Your task to perform on an android device: uninstall "Microsoft Outlook" Image 0: 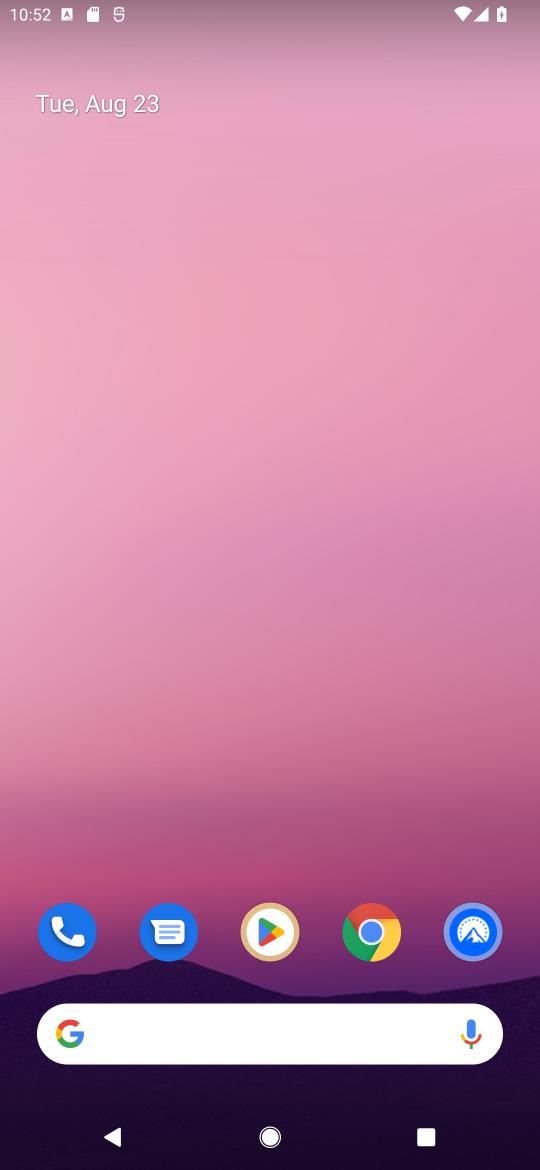
Step 0: click (276, 931)
Your task to perform on an android device: uninstall "Microsoft Outlook" Image 1: 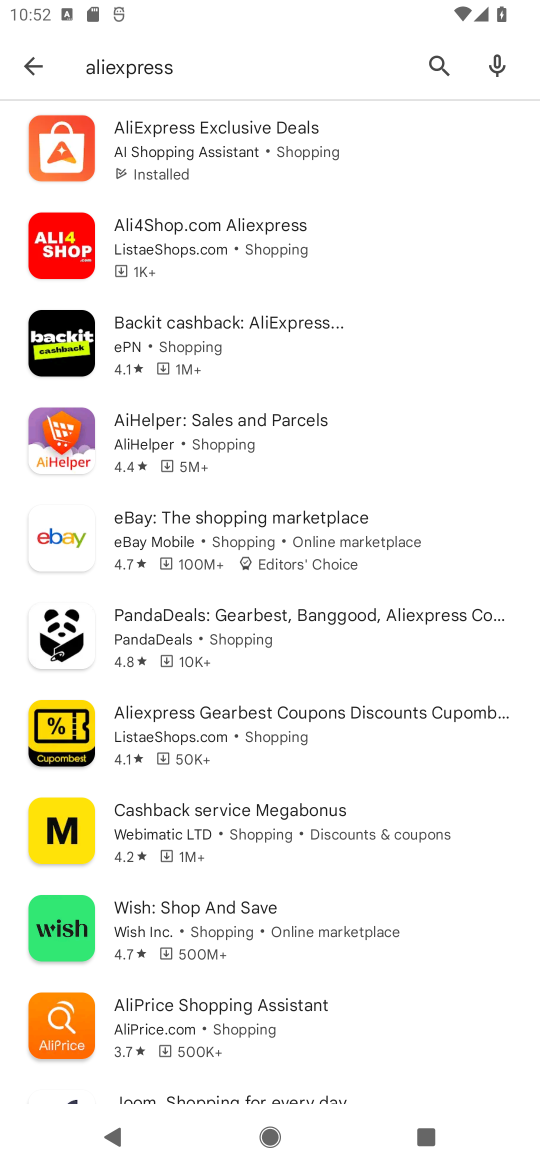
Step 1: click (432, 62)
Your task to perform on an android device: uninstall "Microsoft Outlook" Image 2: 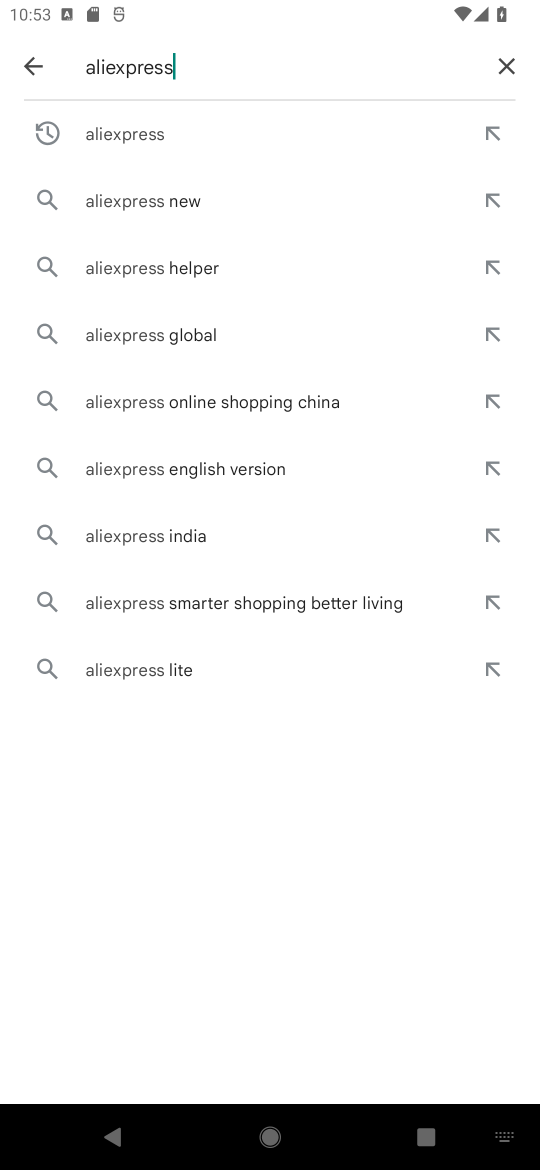
Step 2: click (500, 58)
Your task to perform on an android device: uninstall "Microsoft Outlook" Image 3: 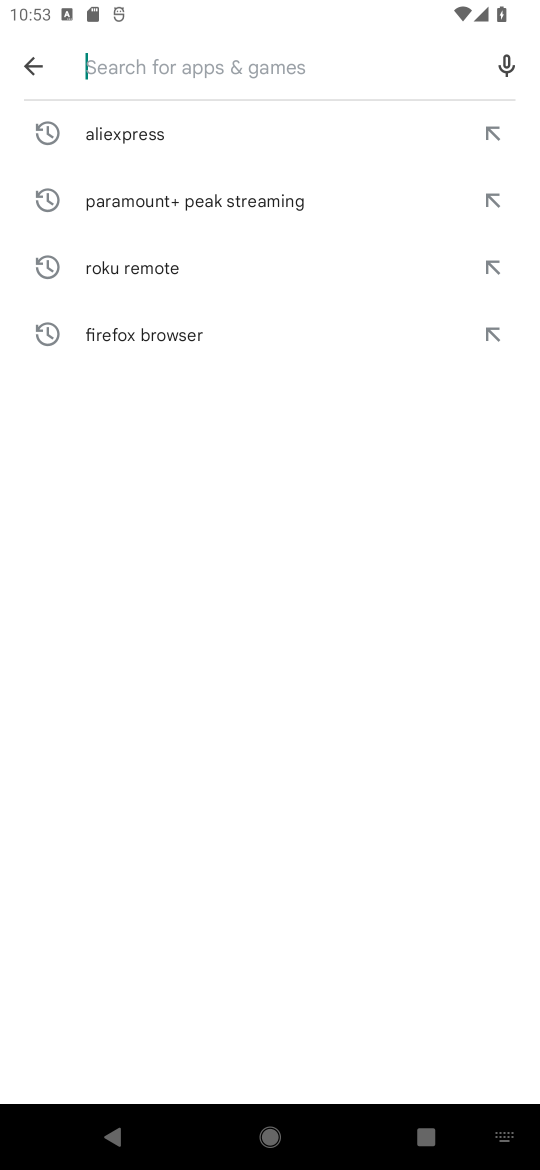
Step 3: click (149, 76)
Your task to perform on an android device: uninstall "Microsoft Outlook" Image 4: 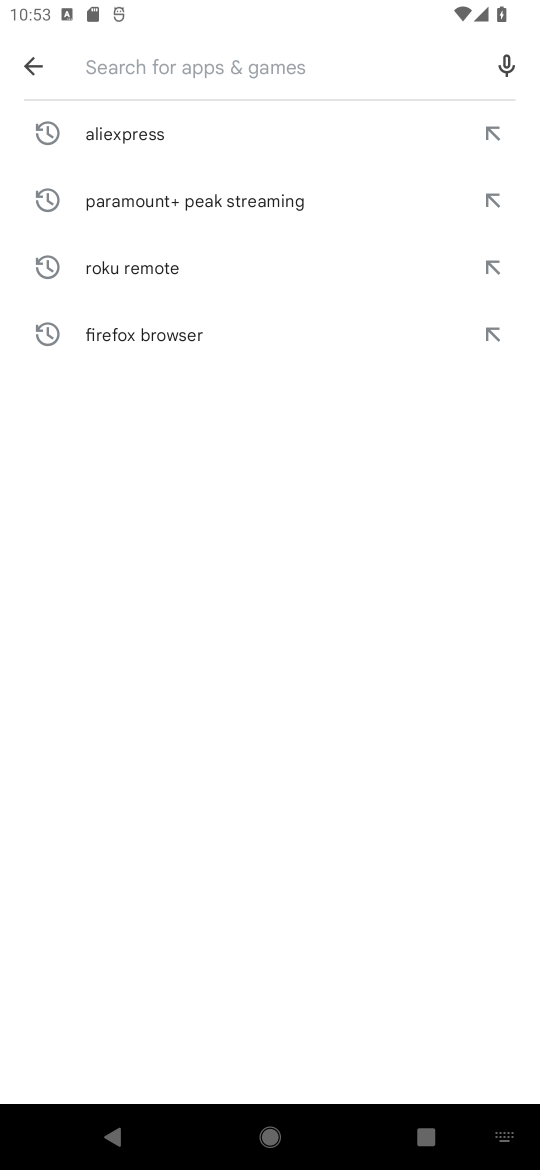
Step 4: type "Microsoft Outlook"
Your task to perform on an android device: uninstall "Microsoft Outlook" Image 5: 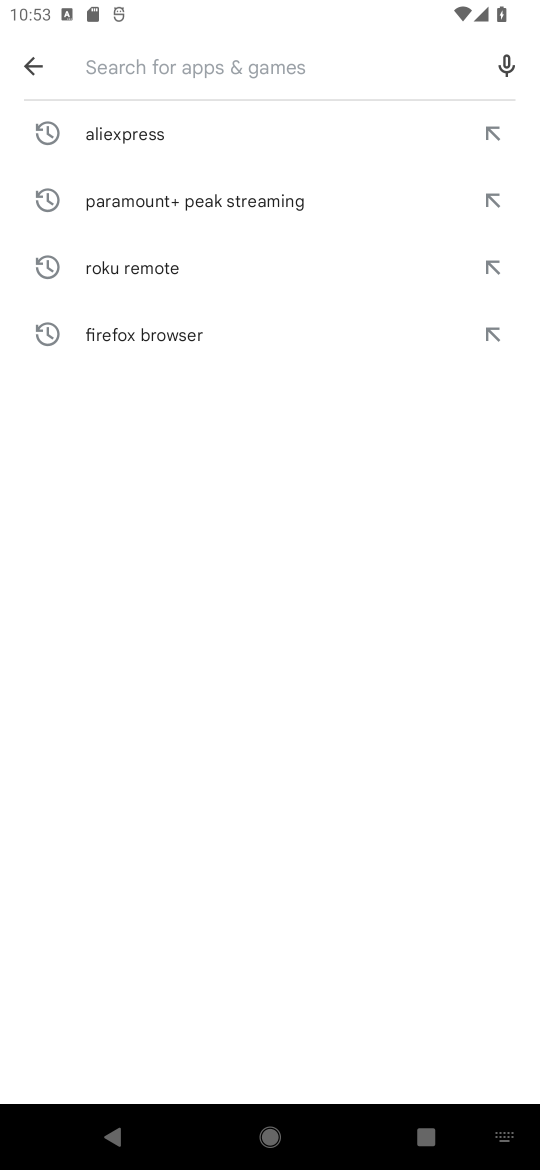
Step 5: click (291, 694)
Your task to perform on an android device: uninstall "Microsoft Outlook" Image 6: 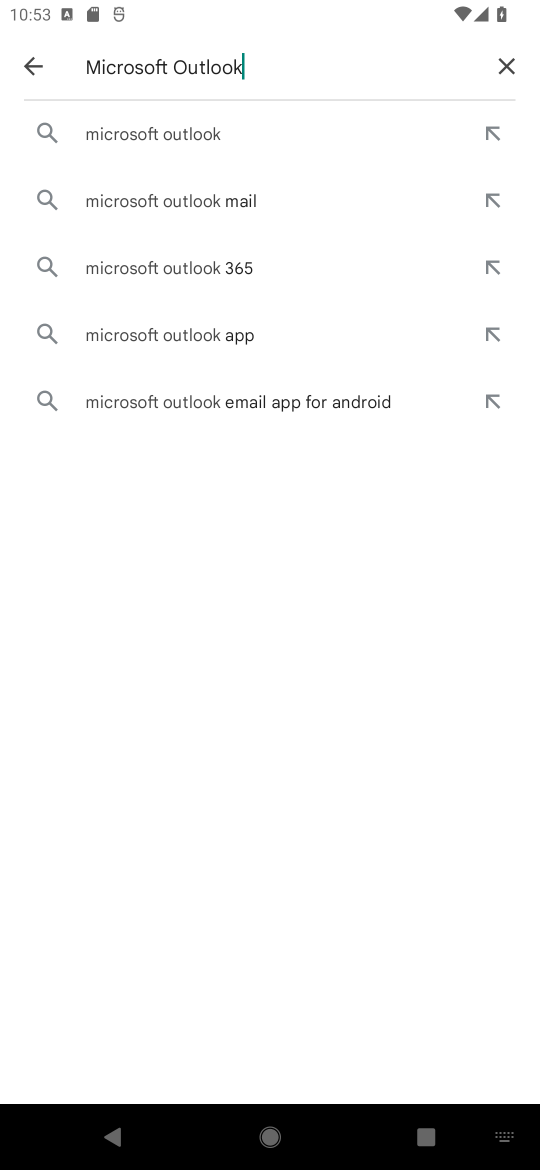
Step 6: click (163, 134)
Your task to perform on an android device: uninstall "Microsoft Outlook" Image 7: 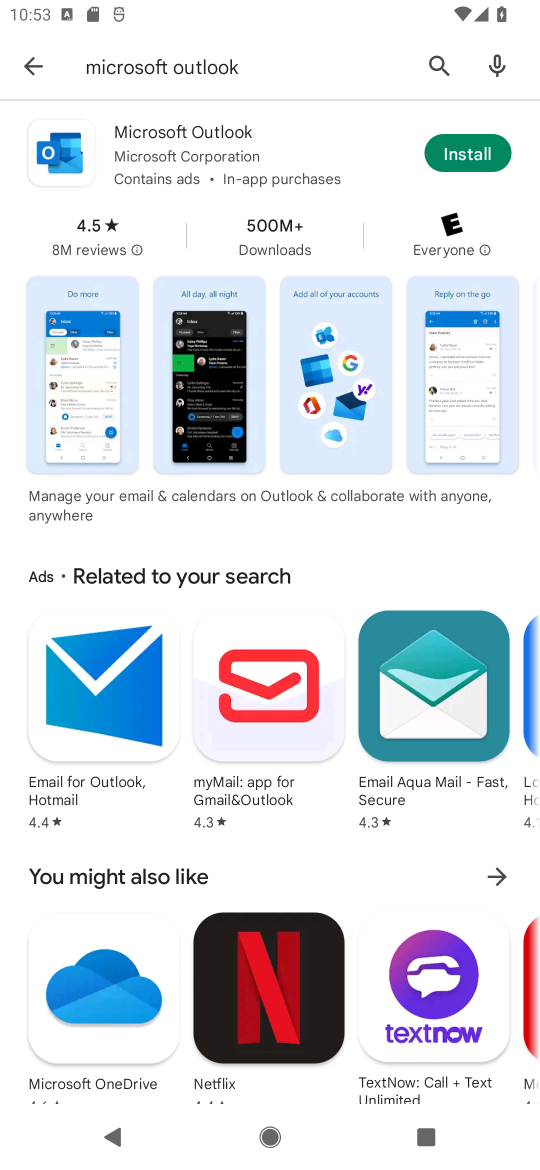
Step 7: task complete